Your task to perform on an android device: turn off airplane mode Image 0: 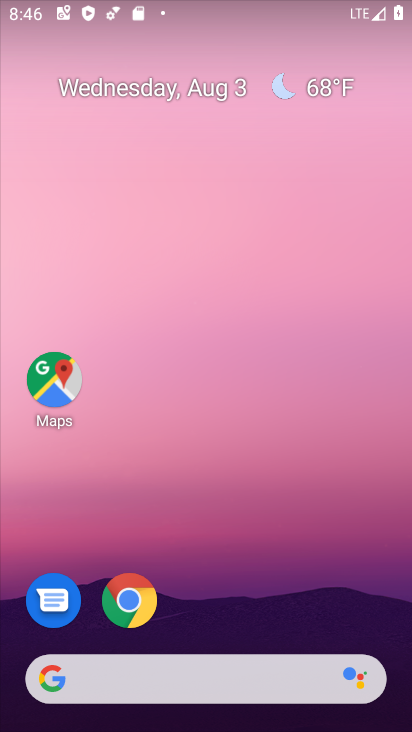
Step 0: drag from (212, 607) to (239, 44)
Your task to perform on an android device: turn off airplane mode Image 1: 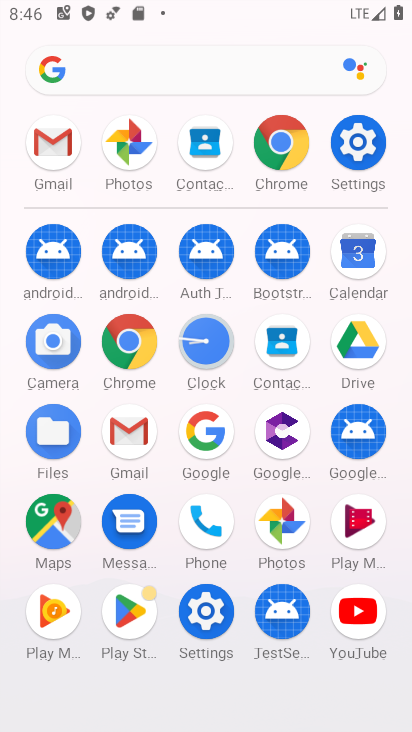
Step 1: click (359, 159)
Your task to perform on an android device: turn off airplane mode Image 2: 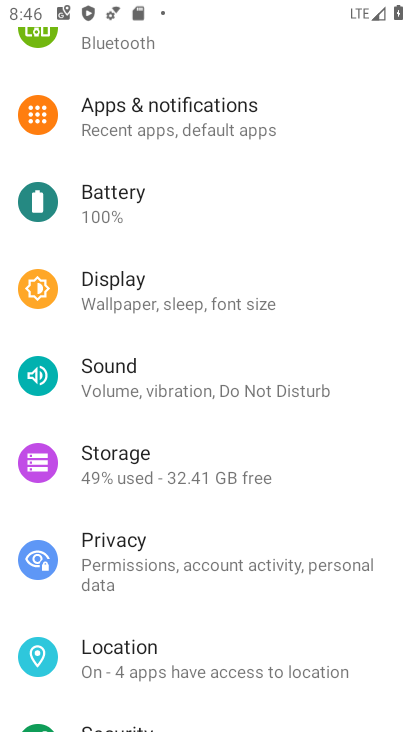
Step 2: drag from (231, 146) to (243, 386)
Your task to perform on an android device: turn off airplane mode Image 3: 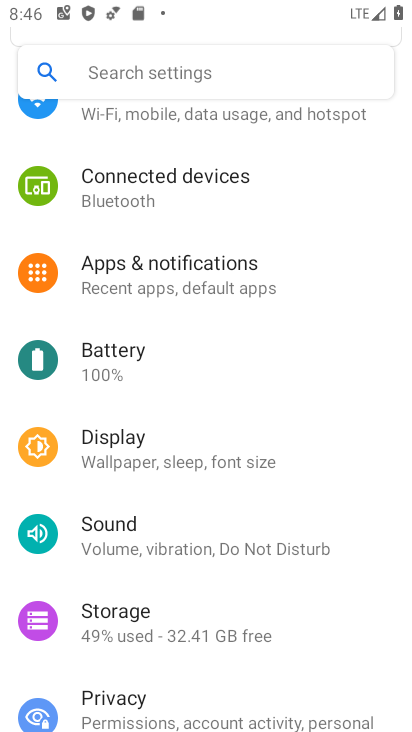
Step 3: drag from (205, 209) to (245, 554)
Your task to perform on an android device: turn off airplane mode Image 4: 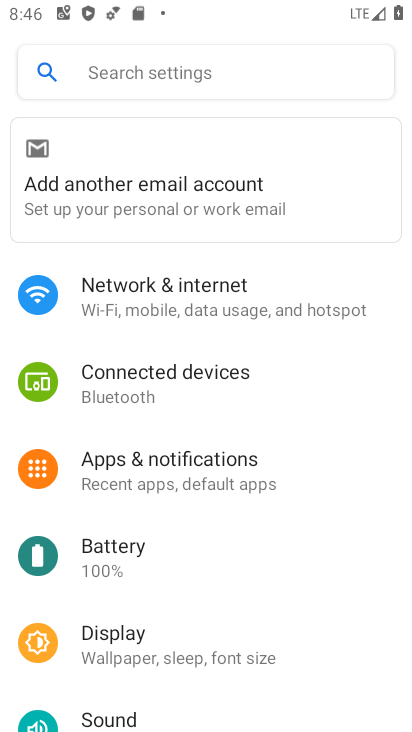
Step 4: click (225, 313)
Your task to perform on an android device: turn off airplane mode Image 5: 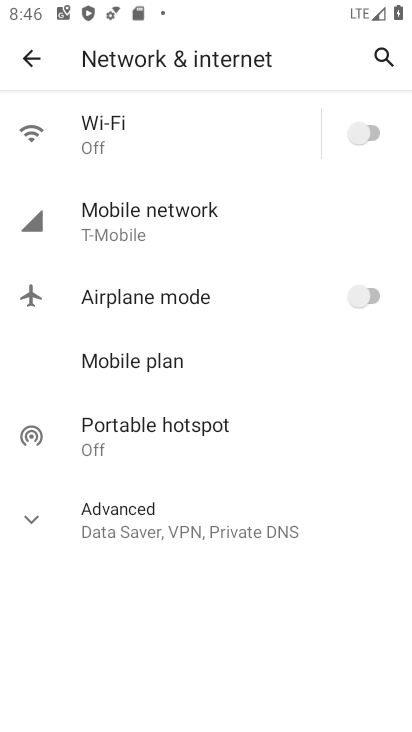
Step 5: task complete